Your task to perform on an android device: turn on notifications settings in the gmail app Image 0: 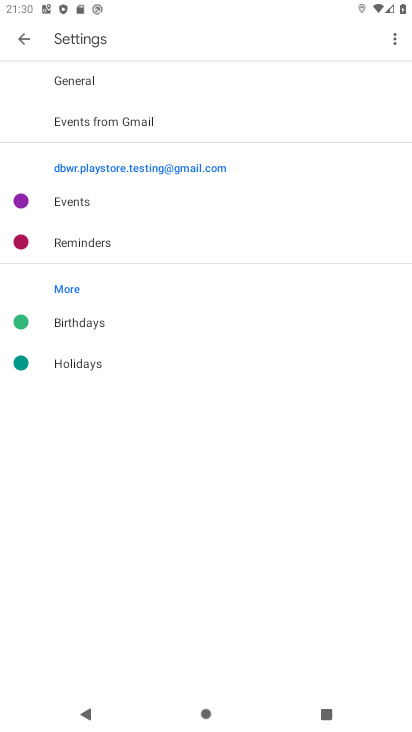
Step 0: press home button
Your task to perform on an android device: turn on notifications settings in the gmail app Image 1: 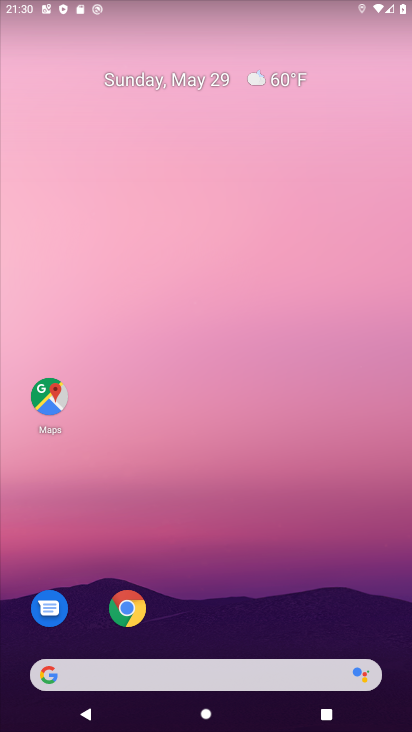
Step 1: drag from (364, 602) to (359, 248)
Your task to perform on an android device: turn on notifications settings in the gmail app Image 2: 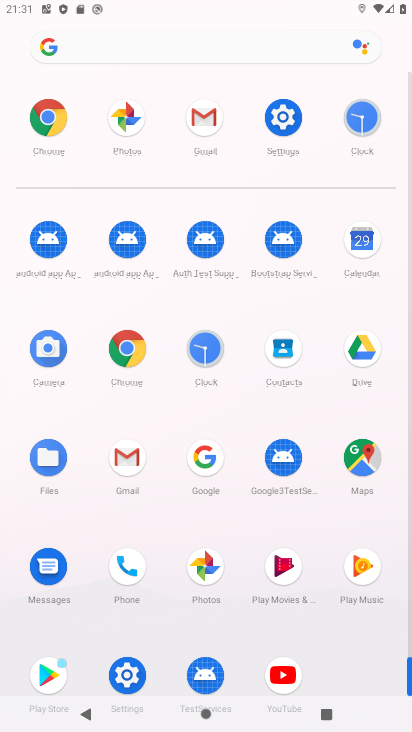
Step 2: click (137, 464)
Your task to perform on an android device: turn on notifications settings in the gmail app Image 3: 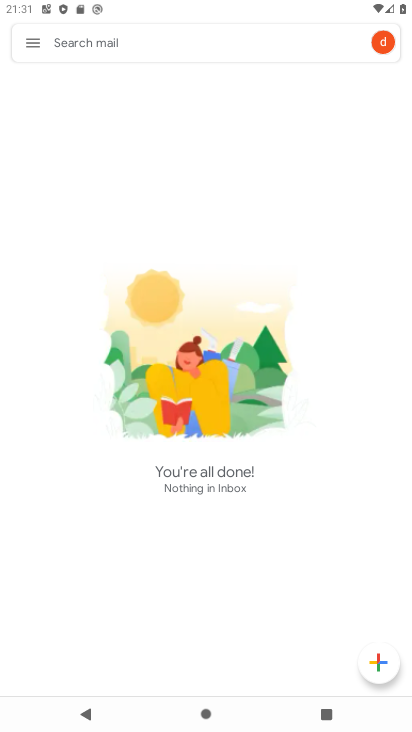
Step 3: click (36, 45)
Your task to perform on an android device: turn on notifications settings in the gmail app Image 4: 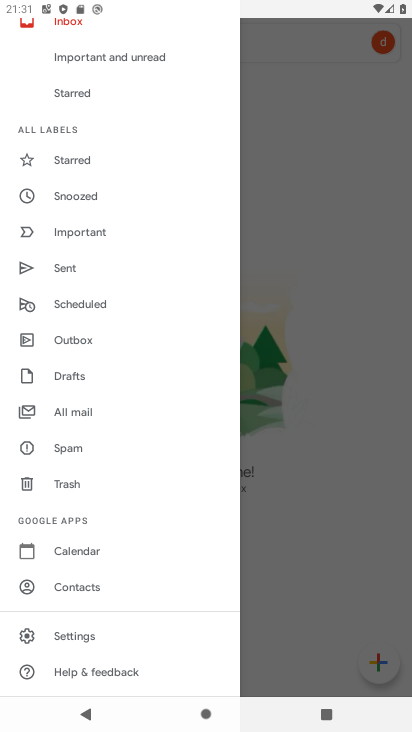
Step 4: drag from (179, 162) to (176, 326)
Your task to perform on an android device: turn on notifications settings in the gmail app Image 5: 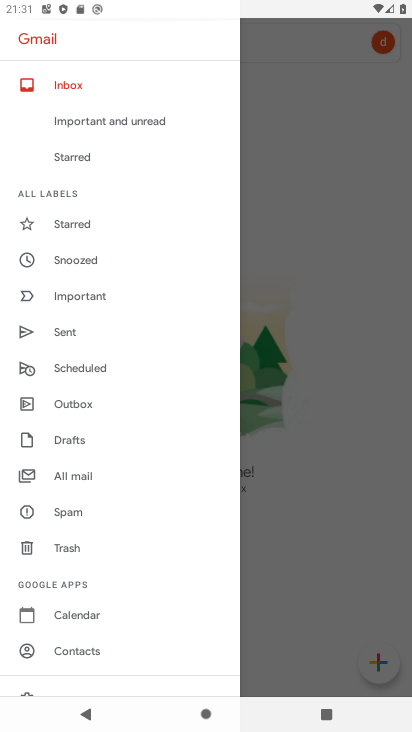
Step 5: drag from (178, 351) to (190, 298)
Your task to perform on an android device: turn on notifications settings in the gmail app Image 6: 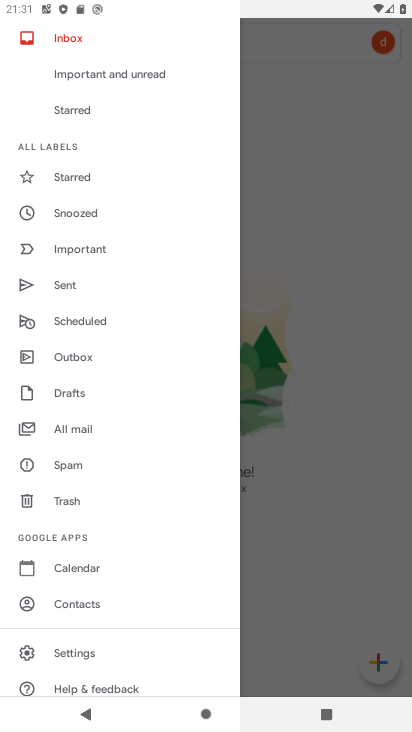
Step 6: drag from (179, 360) to (179, 306)
Your task to perform on an android device: turn on notifications settings in the gmail app Image 7: 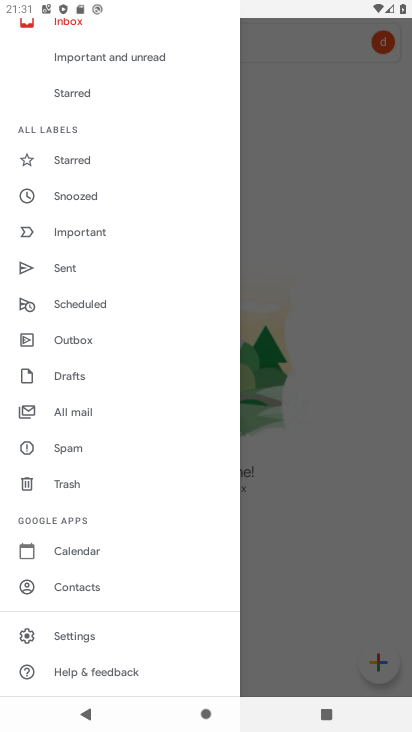
Step 7: drag from (176, 355) to (183, 281)
Your task to perform on an android device: turn on notifications settings in the gmail app Image 8: 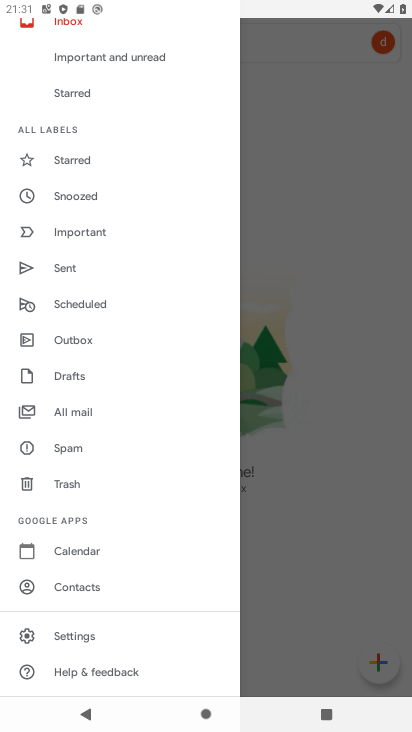
Step 8: click (125, 640)
Your task to perform on an android device: turn on notifications settings in the gmail app Image 9: 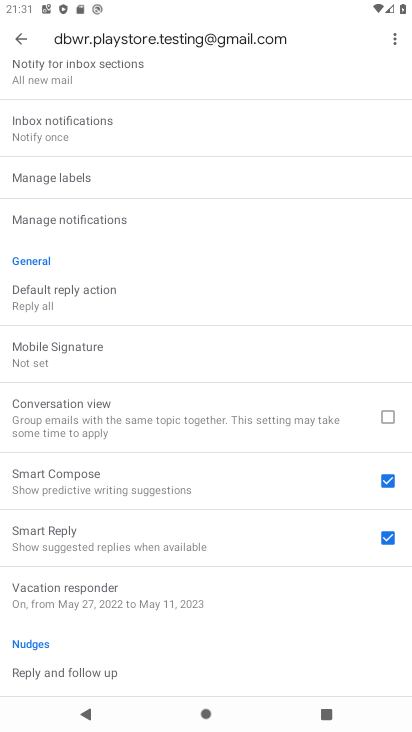
Step 9: drag from (226, 610) to (242, 532)
Your task to perform on an android device: turn on notifications settings in the gmail app Image 10: 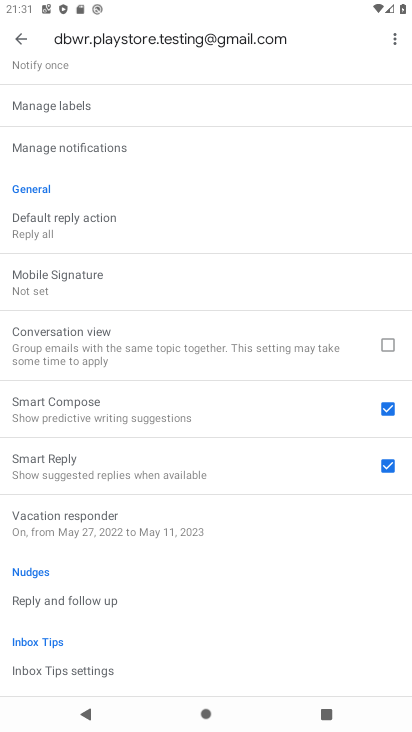
Step 10: drag from (267, 590) to (283, 508)
Your task to perform on an android device: turn on notifications settings in the gmail app Image 11: 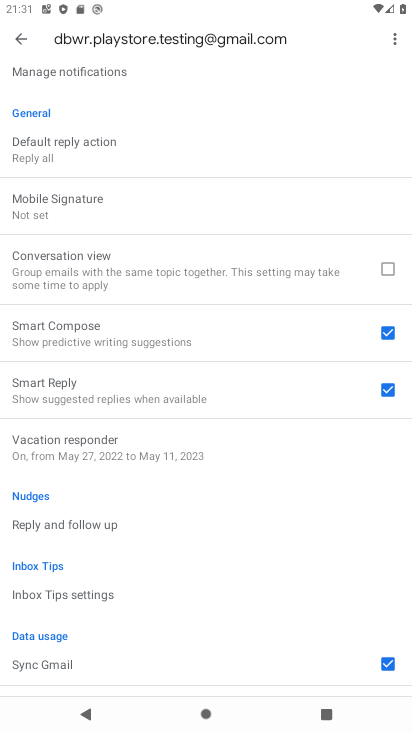
Step 11: drag from (282, 586) to (288, 513)
Your task to perform on an android device: turn on notifications settings in the gmail app Image 12: 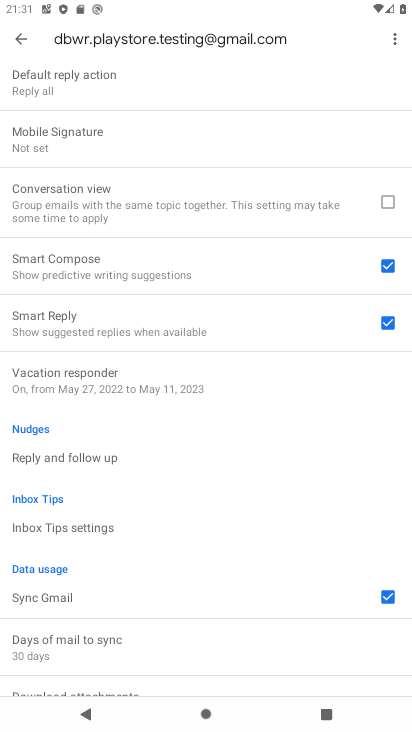
Step 12: drag from (287, 599) to (290, 499)
Your task to perform on an android device: turn on notifications settings in the gmail app Image 13: 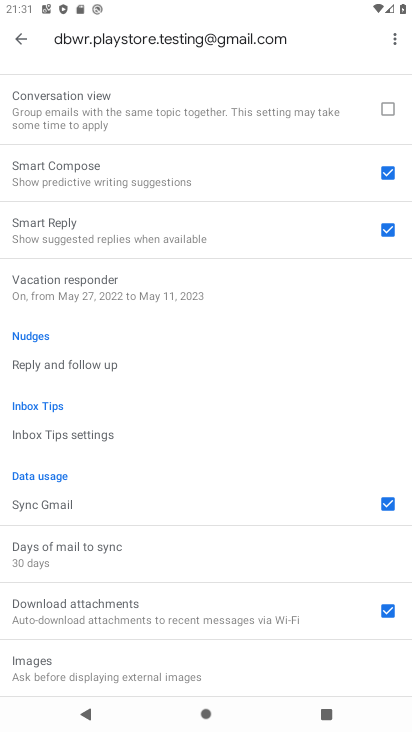
Step 13: drag from (285, 581) to (284, 373)
Your task to perform on an android device: turn on notifications settings in the gmail app Image 14: 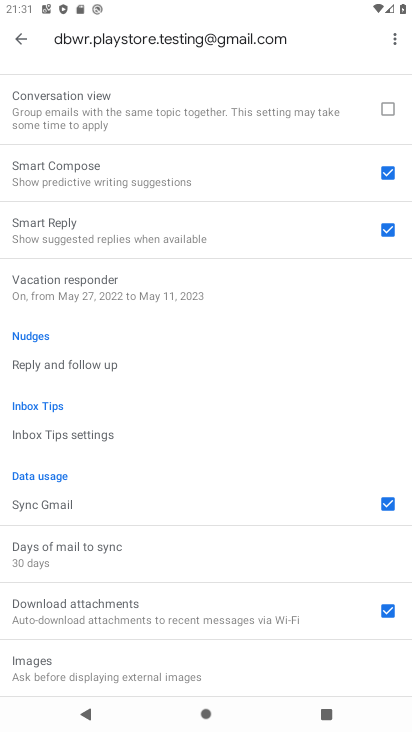
Step 14: drag from (267, 276) to (259, 417)
Your task to perform on an android device: turn on notifications settings in the gmail app Image 15: 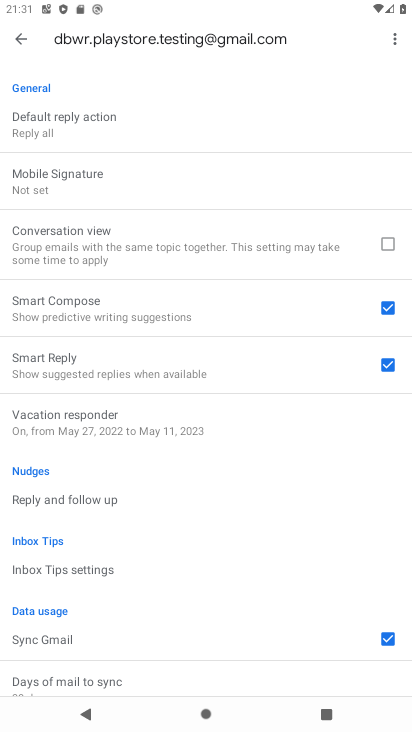
Step 15: drag from (281, 275) to (281, 370)
Your task to perform on an android device: turn on notifications settings in the gmail app Image 16: 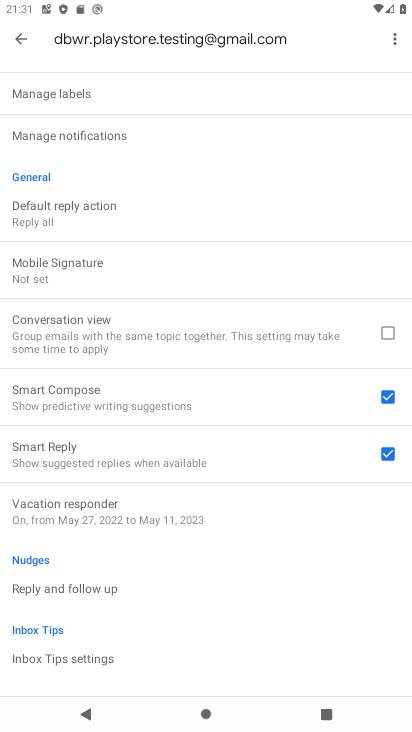
Step 16: drag from (274, 242) to (271, 373)
Your task to perform on an android device: turn on notifications settings in the gmail app Image 17: 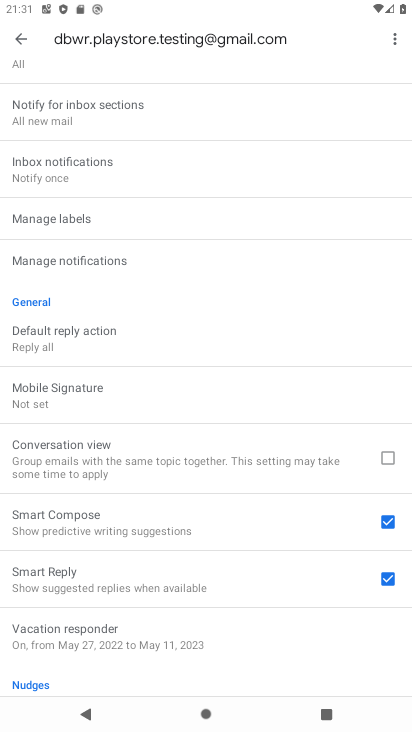
Step 17: drag from (280, 224) to (266, 367)
Your task to perform on an android device: turn on notifications settings in the gmail app Image 18: 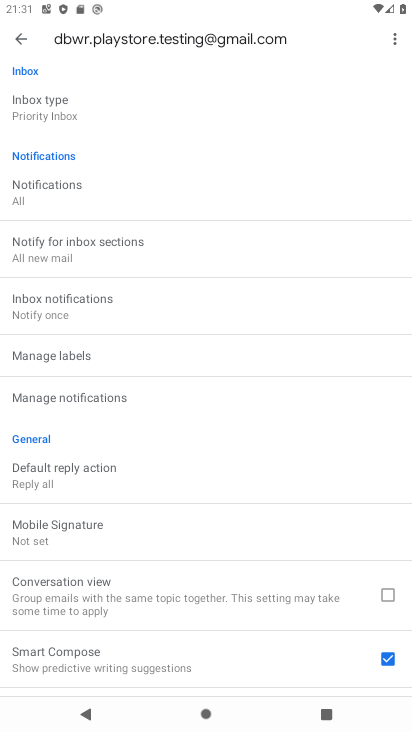
Step 18: click (139, 412)
Your task to perform on an android device: turn on notifications settings in the gmail app Image 19: 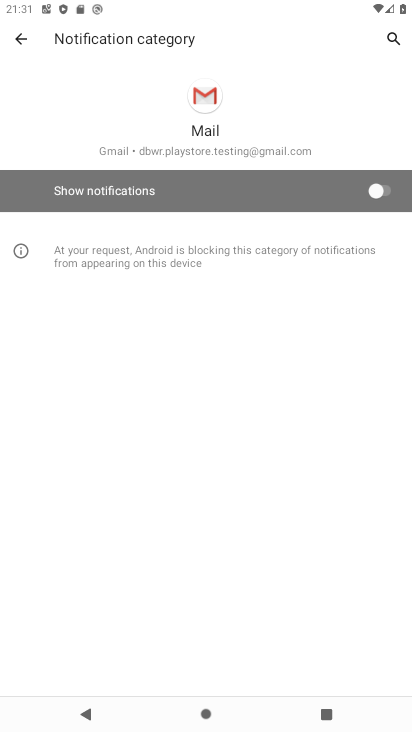
Step 19: click (385, 188)
Your task to perform on an android device: turn on notifications settings in the gmail app Image 20: 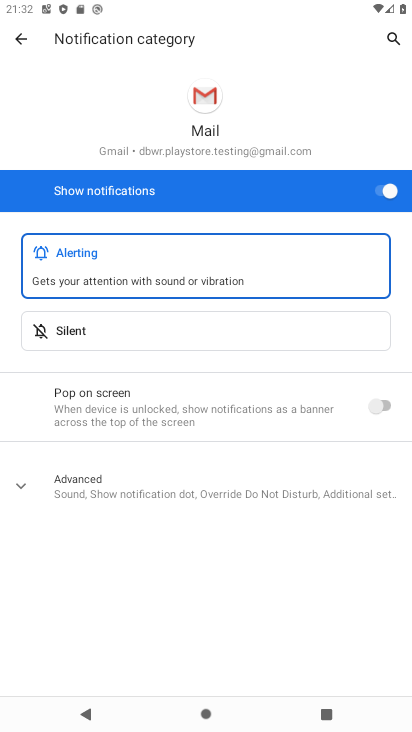
Step 20: task complete